Your task to perform on an android device: set default search engine in the chrome app Image 0: 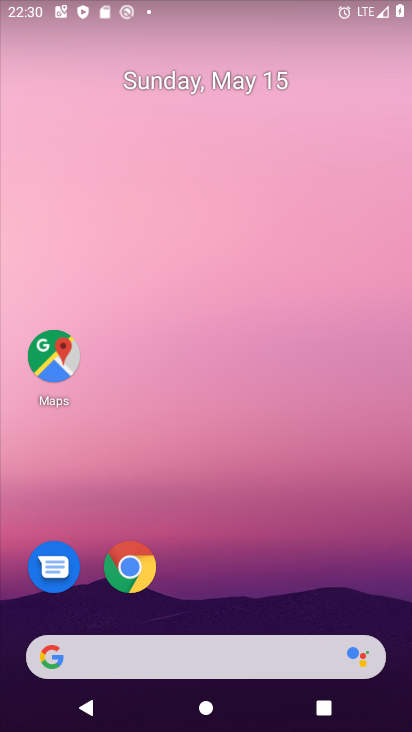
Step 0: click (127, 566)
Your task to perform on an android device: set default search engine in the chrome app Image 1: 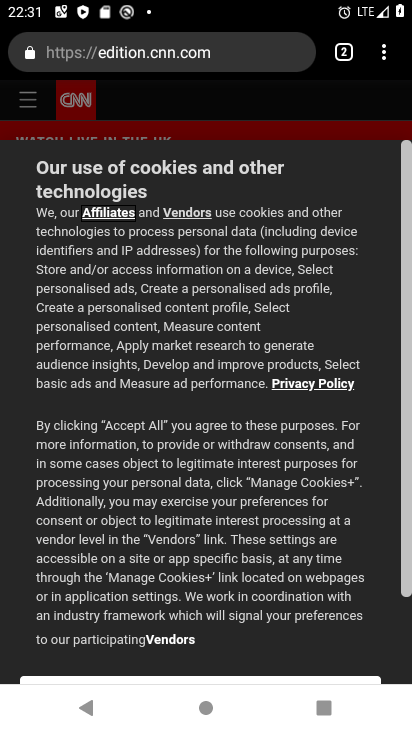
Step 1: click (383, 44)
Your task to perform on an android device: set default search engine in the chrome app Image 2: 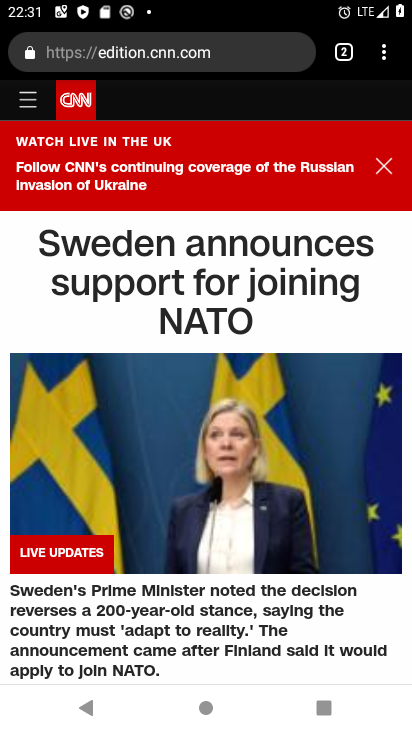
Step 2: click (386, 52)
Your task to perform on an android device: set default search engine in the chrome app Image 3: 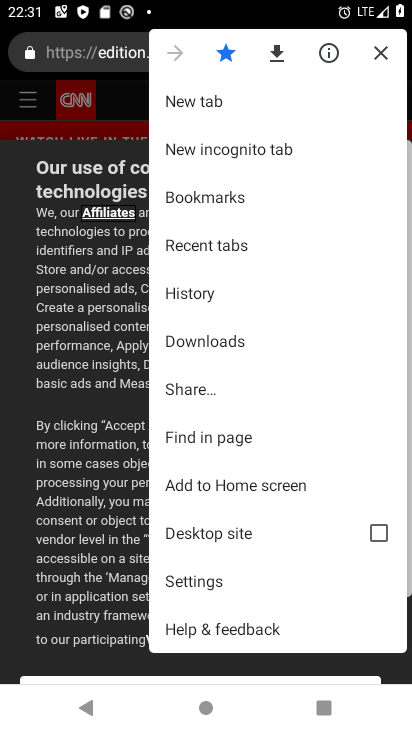
Step 3: click (245, 581)
Your task to perform on an android device: set default search engine in the chrome app Image 4: 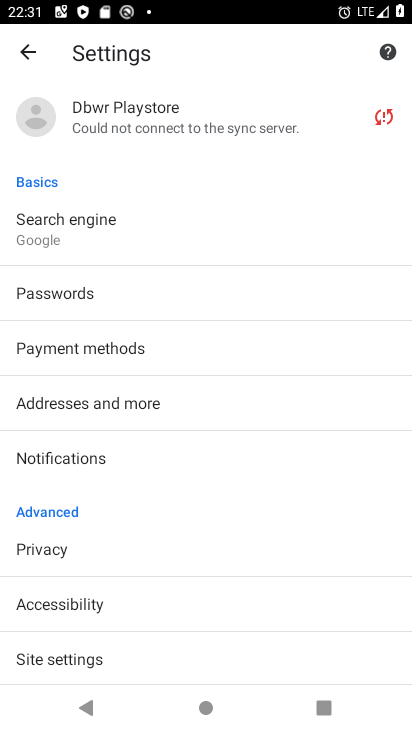
Step 4: click (108, 240)
Your task to perform on an android device: set default search engine in the chrome app Image 5: 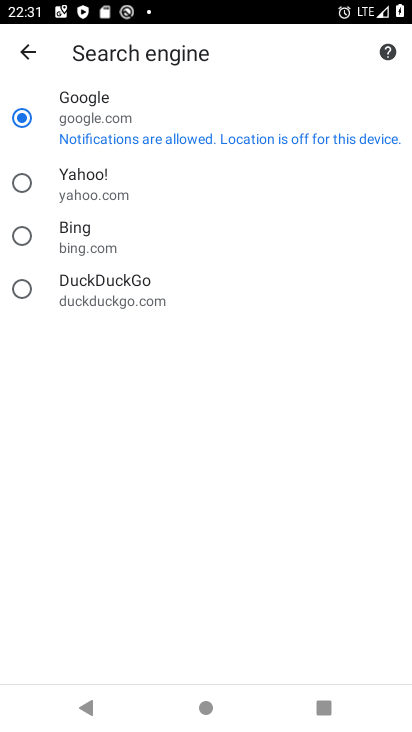
Step 5: task complete